Your task to perform on an android device: manage bookmarks in the chrome app Image 0: 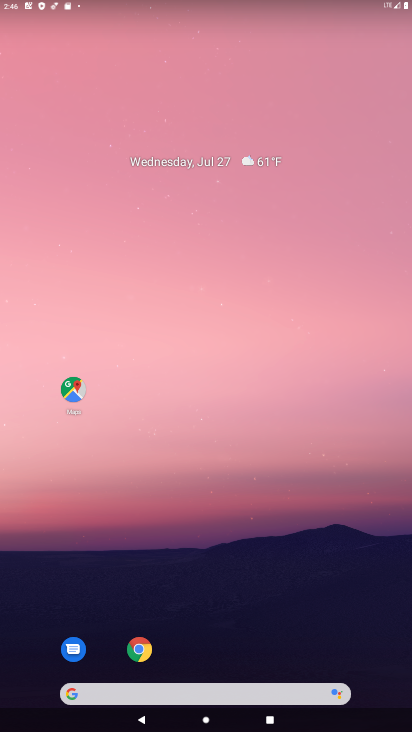
Step 0: click (138, 650)
Your task to perform on an android device: manage bookmarks in the chrome app Image 1: 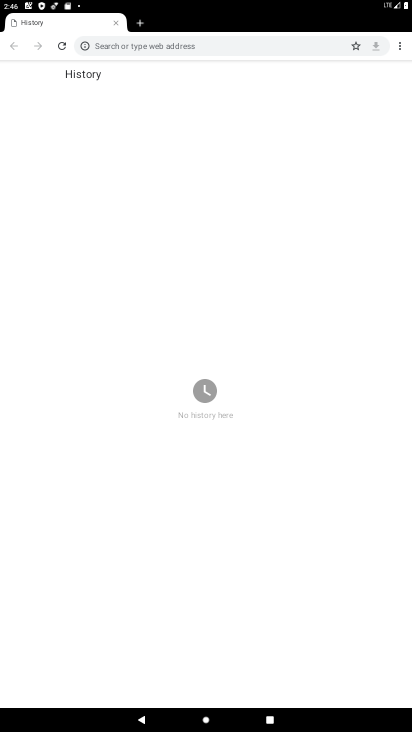
Step 1: click (398, 44)
Your task to perform on an android device: manage bookmarks in the chrome app Image 2: 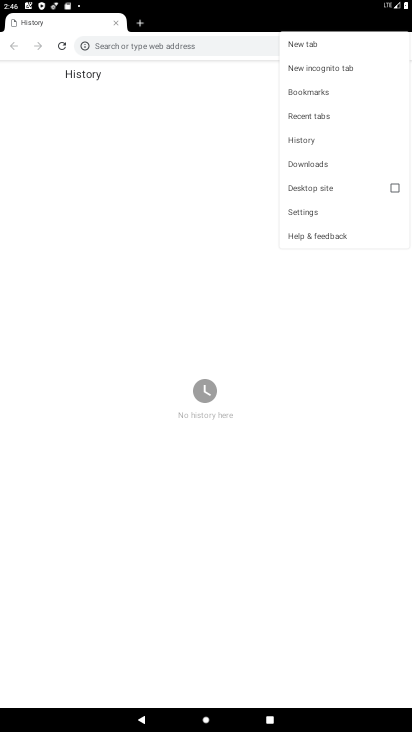
Step 2: click (316, 91)
Your task to perform on an android device: manage bookmarks in the chrome app Image 3: 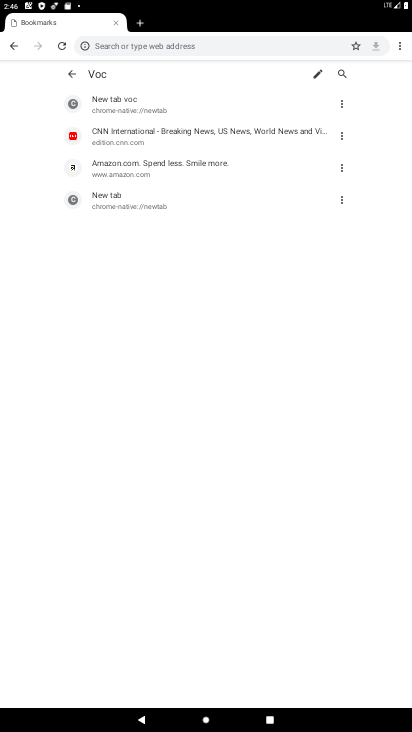
Step 3: click (340, 103)
Your task to perform on an android device: manage bookmarks in the chrome app Image 4: 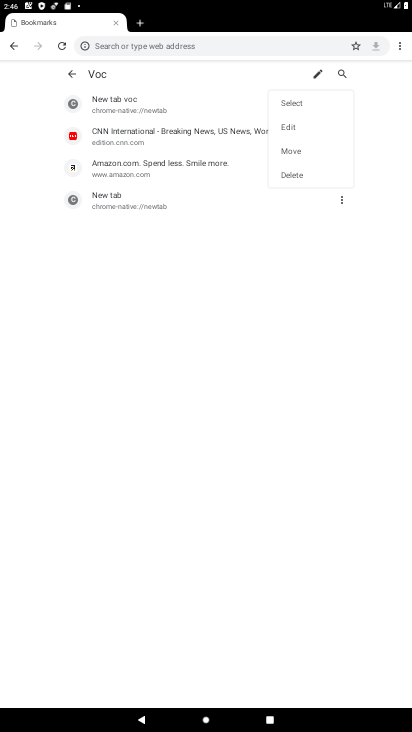
Step 4: click (291, 173)
Your task to perform on an android device: manage bookmarks in the chrome app Image 5: 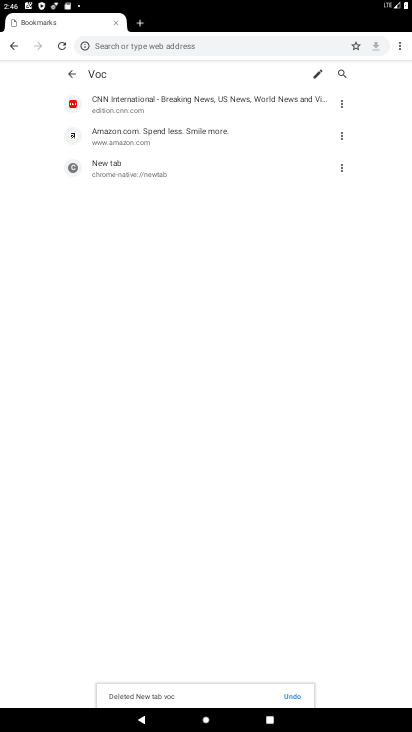
Step 5: task complete